Your task to perform on an android device: toggle location history Image 0: 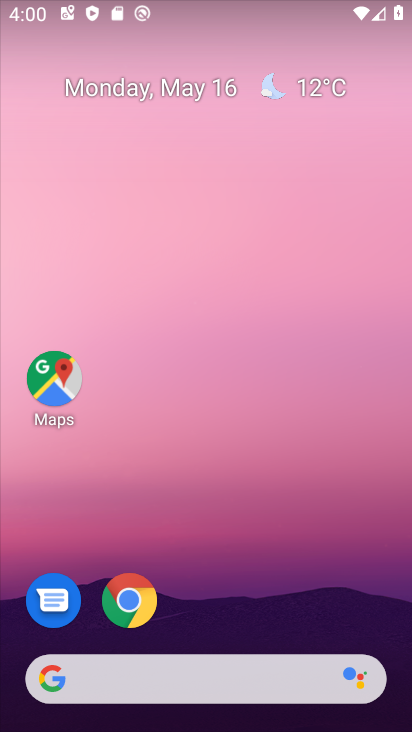
Step 0: drag from (206, 664) to (181, 333)
Your task to perform on an android device: toggle location history Image 1: 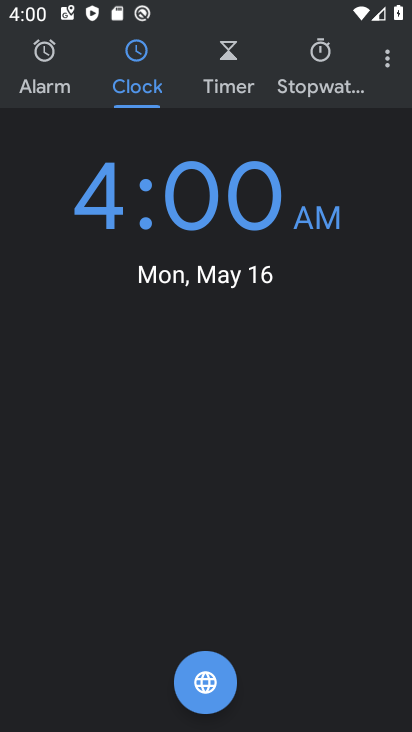
Step 1: click (388, 56)
Your task to perform on an android device: toggle location history Image 2: 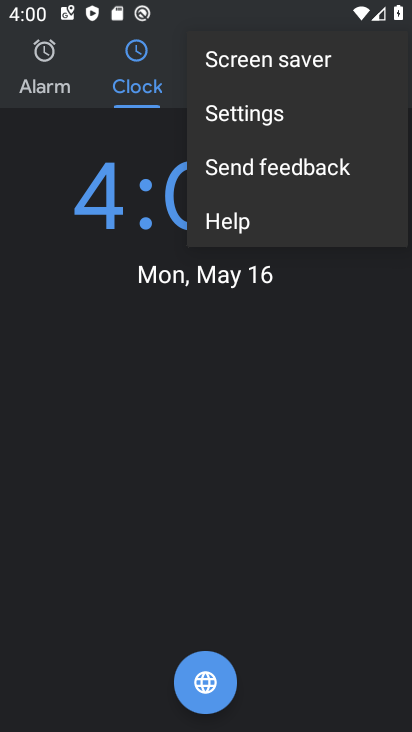
Step 2: click (253, 366)
Your task to perform on an android device: toggle location history Image 3: 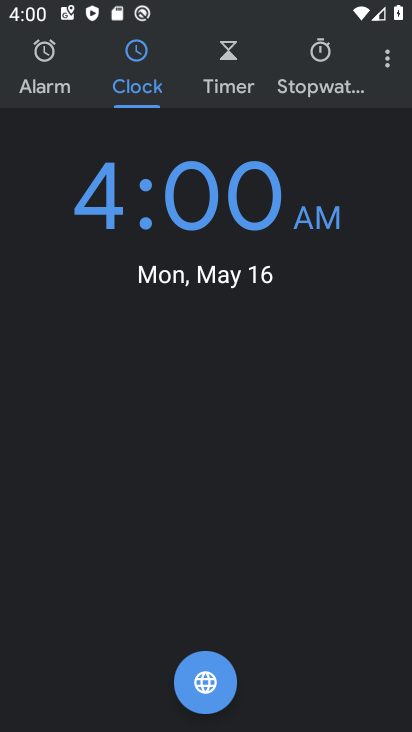
Step 3: press home button
Your task to perform on an android device: toggle location history Image 4: 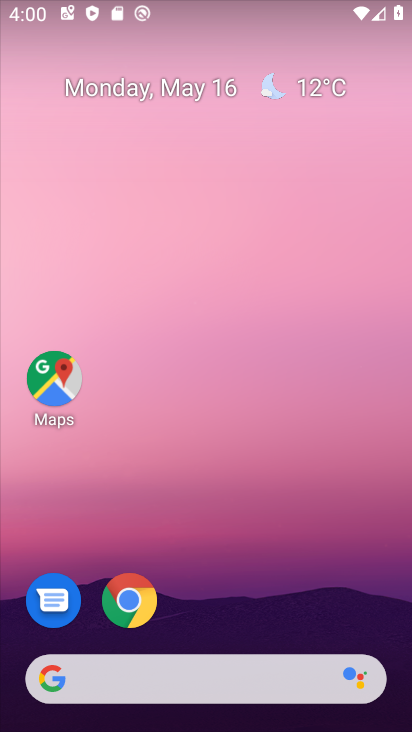
Step 4: drag from (165, 582) to (133, 251)
Your task to perform on an android device: toggle location history Image 5: 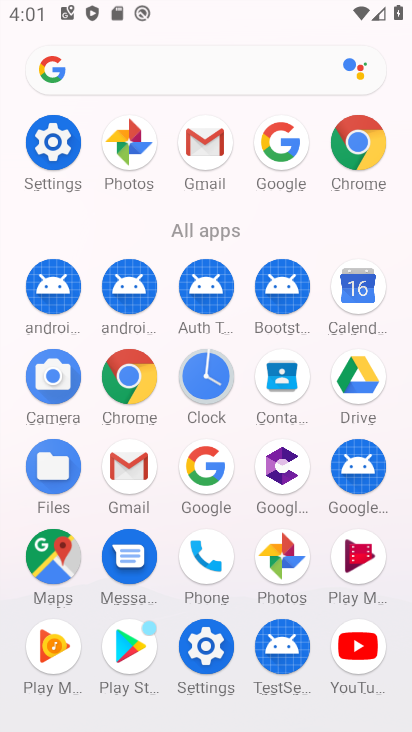
Step 5: click (25, 119)
Your task to perform on an android device: toggle location history Image 6: 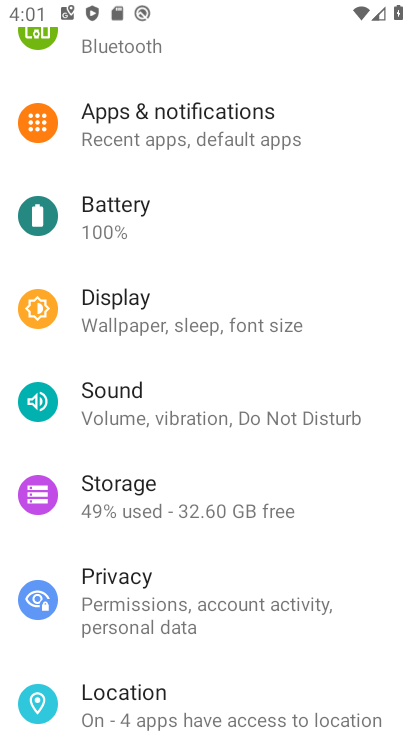
Step 6: click (151, 702)
Your task to perform on an android device: toggle location history Image 7: 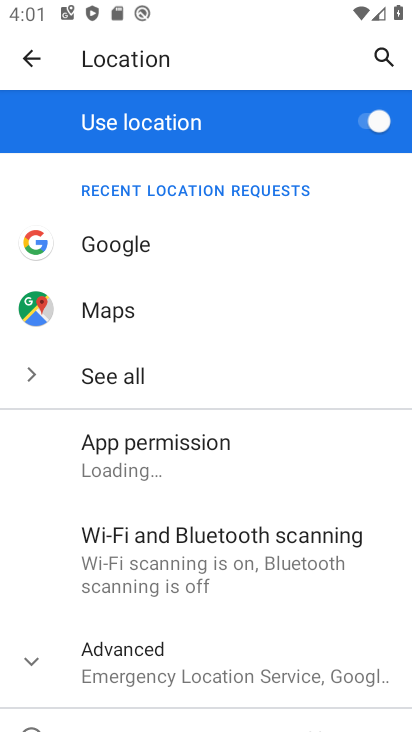
Step 7: click (130, 454)
Your task to perform on an android device: toggle location history Image 8: 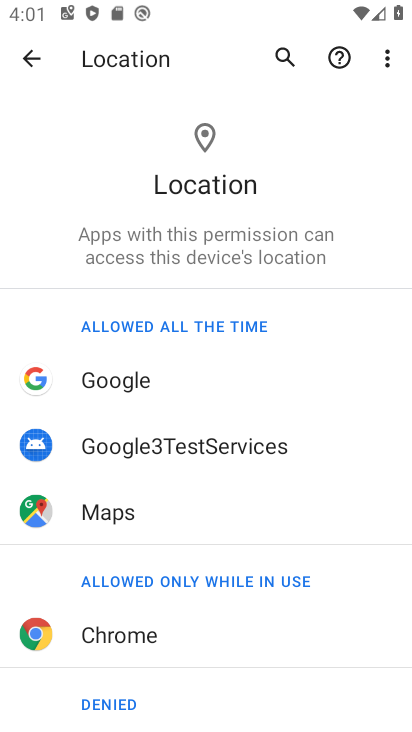
Step 8: drag from (120, 553) to (164, 215)
Your task to perform on an android device: toggle location history Image 9: 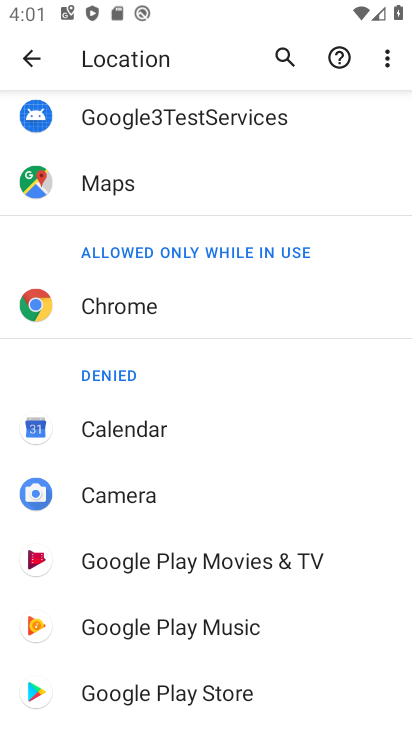
Step 9: drag from (166, 692) to (166, 297)
Your task to perform on an android device: toggle location history Image 10: 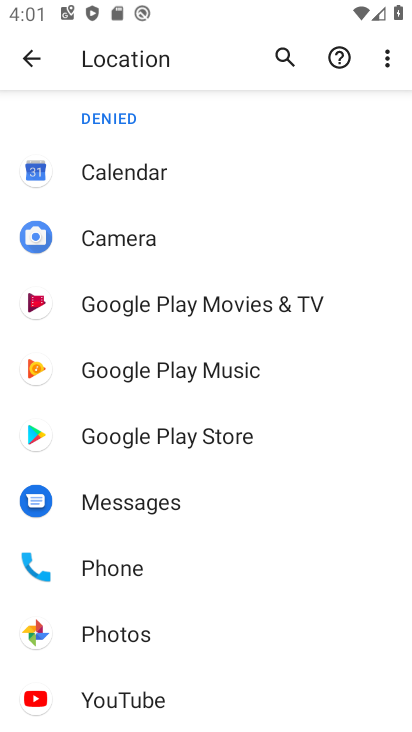
Step 10: drag from (144, 656) to (146, 330)
Your task to perform on an android device: toggle location history Image 11: 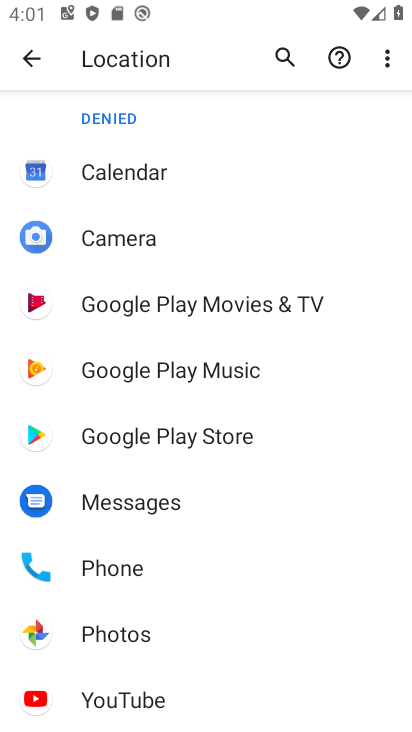
Step 11: press enter
Your task to perform on an android device: toggle location history Image 12: 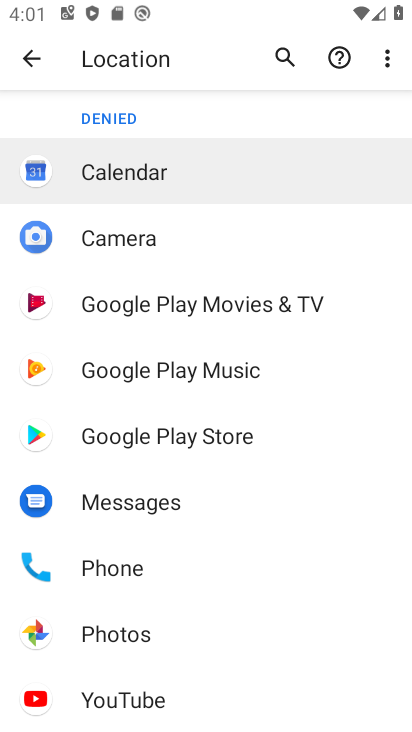
Step 12: drag from (197, 662) to (212, 279)
Your task to perform on an android device: toggle location history Image 13: 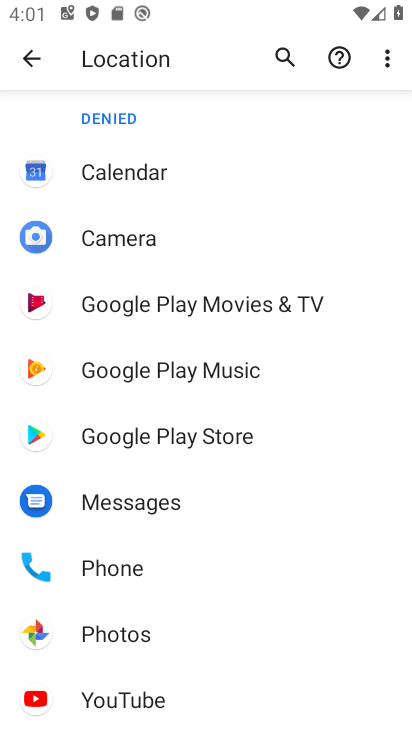
Step 13: drag from (122, 197) to (175, 728)
Your task to perform on an android device: toggle location history Image 14: 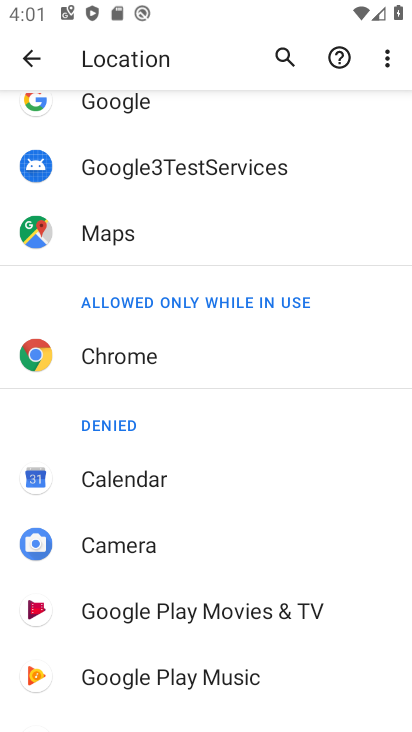
Step 14: click (37, 58)
Your task to perform on an android device: toggle location history Image 15: 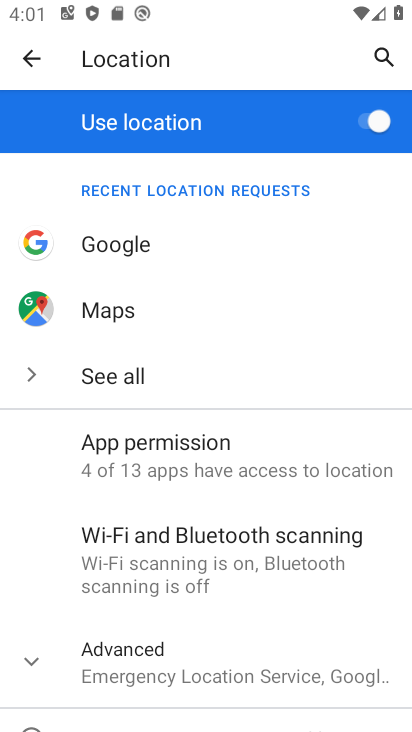
Step 15: click (213, 663)
Your task to perform on an android device: toggle location history Image 16: 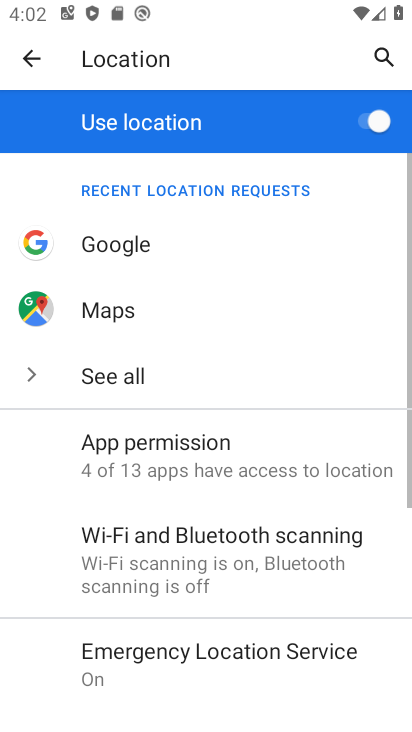
Step 16: drag from (226, 698) to (232, 365)
Your task to perform on an android device: toggle location history Image 17: 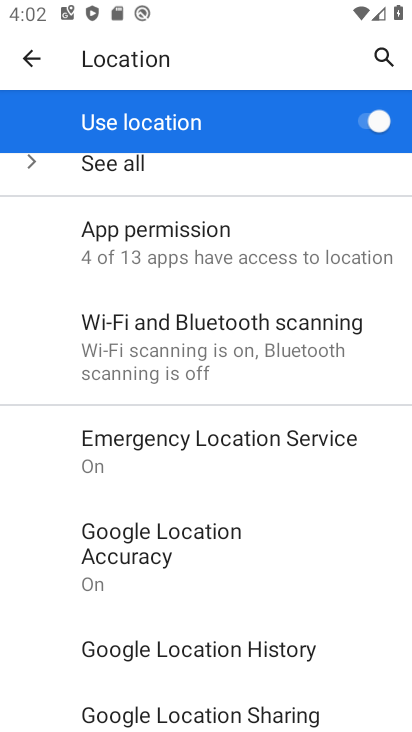
Step 17: click (154, 650)
Your task to perform on an android device: toggle location history Image 18: 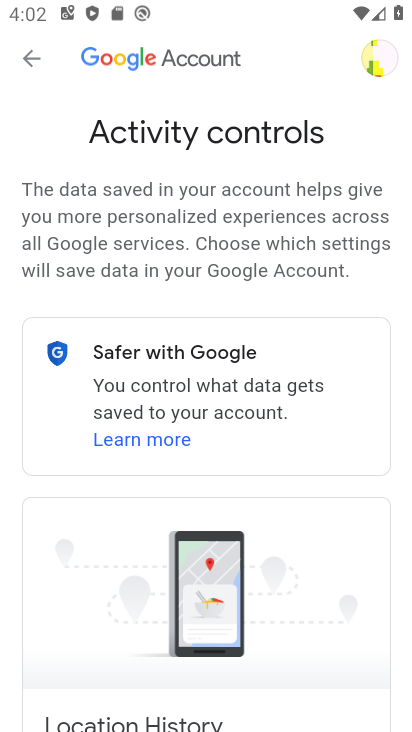
Step 18: drag from (292, 693) to (258, 346)
Your task to perform on an android device: toggle location history Image 19: 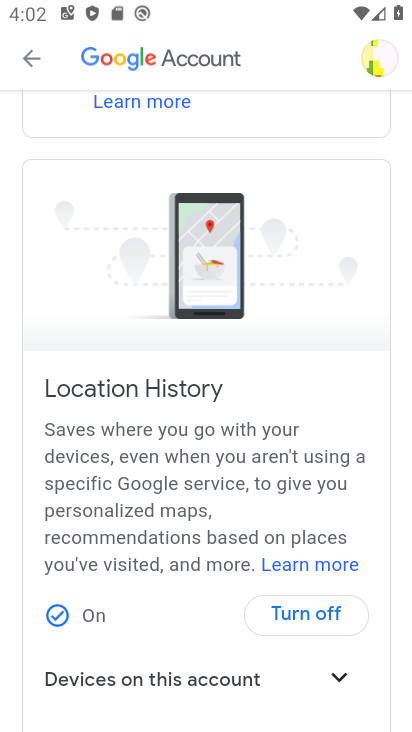
Step 19: drag from (252, 713) to (233, 355)
Your task to perform on an android device: toggle location history Image 20: 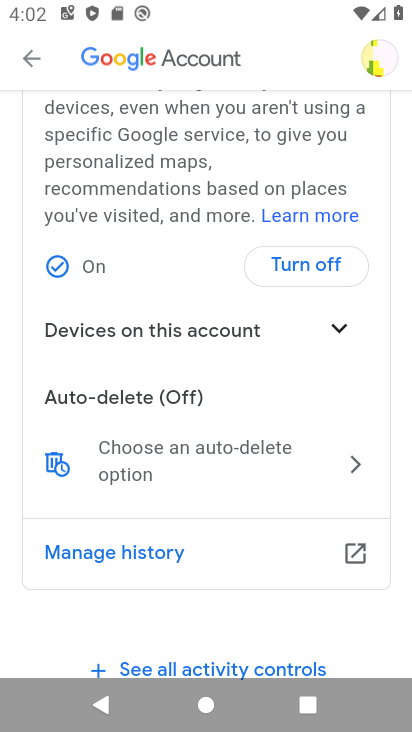
Step 20: click (299, 259)
Your task to perform on an android device: toggle location history Image 21: 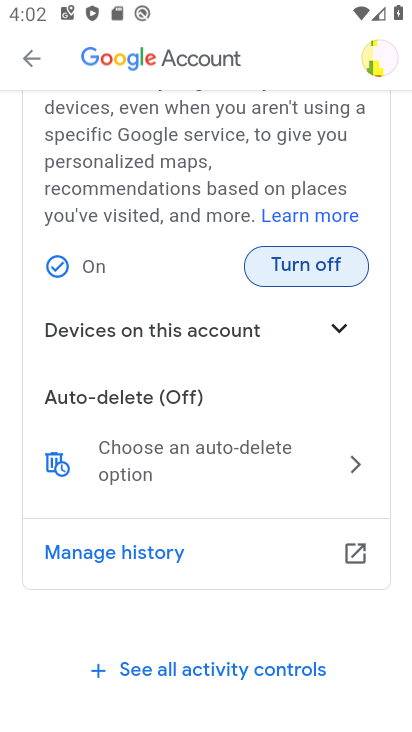
Step 21: click (298, 271)
Your task to perform on an android device: toggle location history Image 22: 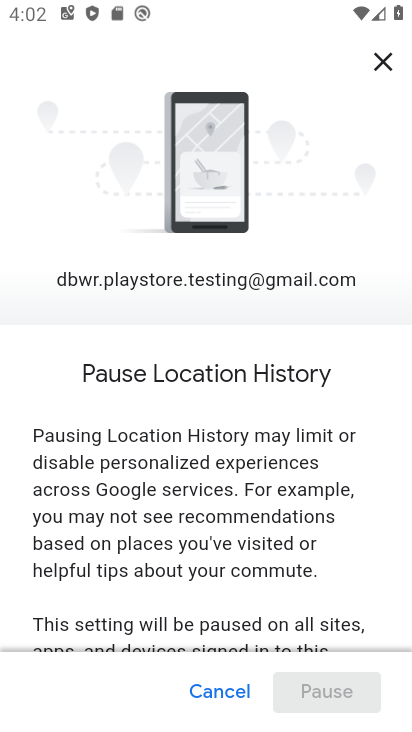
Step 22: drag from (303, 616) to (293, 222)
Your task to perform on an android device: toggle location history Image 23: 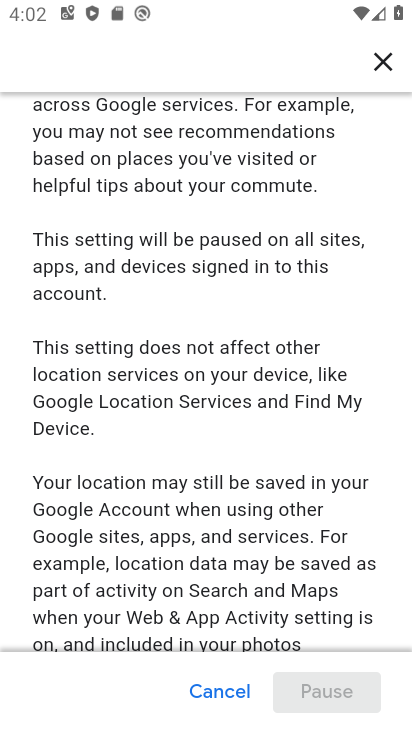
Step 23: drag from (307, 628) to (300, 269)
Your task to perform on an android device: toggle location history Image 24: 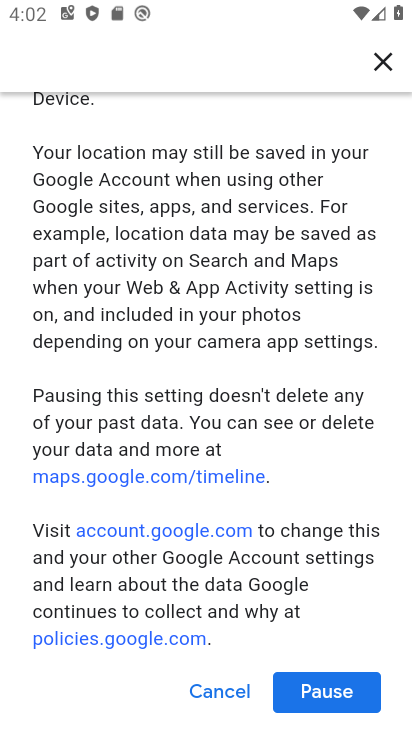
Step 24: click (328, 697)
Your task to perform on an android device: toggle location history Image 25: 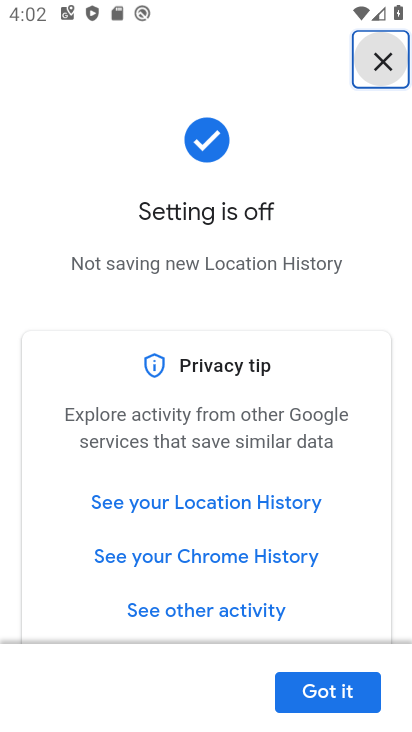
Step 25: drag from (244, 576) to (229, 361)
Your task to perform on an android device: toggle location history Image 26: 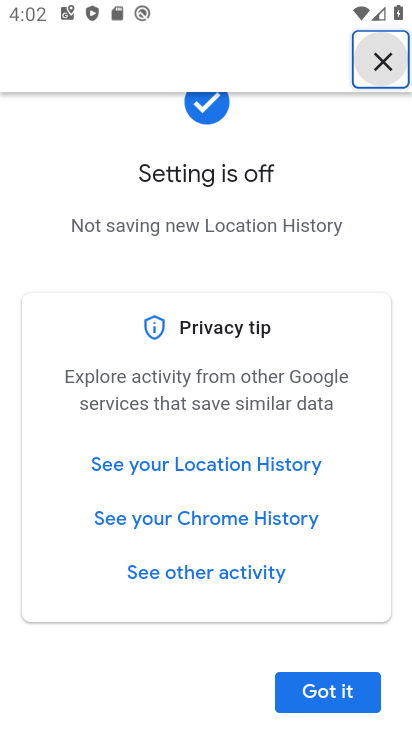
Step 26: click (314, 698)
Your task to perform on an android device: toggle location history Image 27: 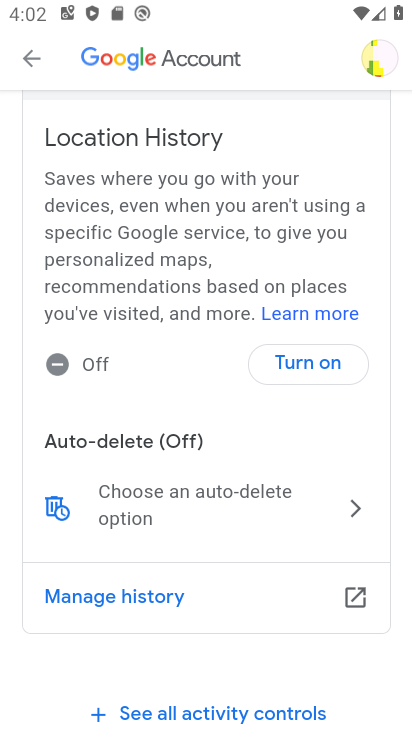
Step 27: task complete